Your task to perform on an android device: turn off wifi Image 0: 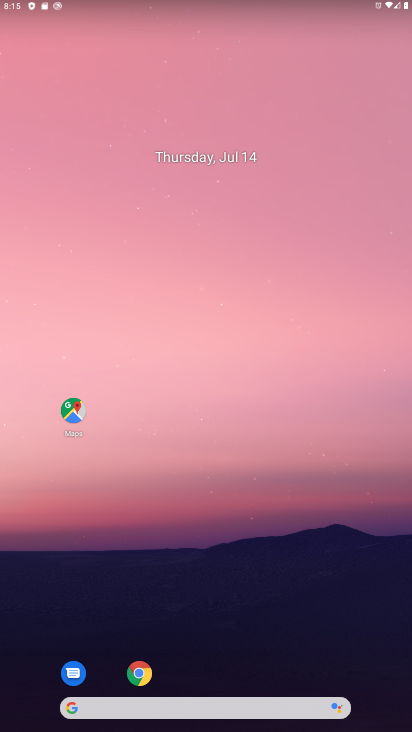
Step 0: drag from (199, 714) to (291, 162)
Your task to perform on an android device: turn off wifi Image 1: 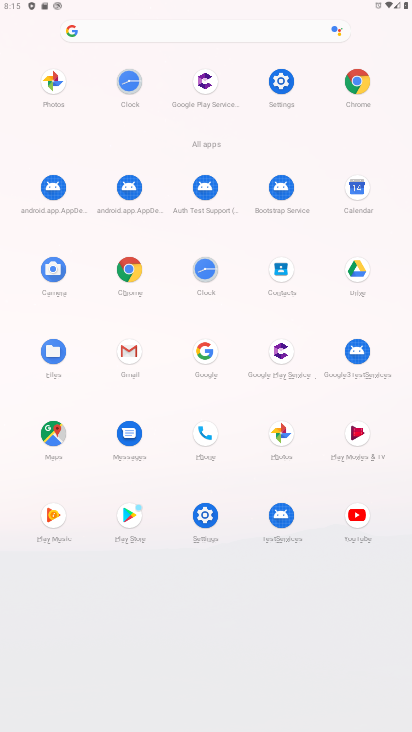
Step 1: click (282, 83)
Your task to perform on an android device: turn off wifi Image 2: 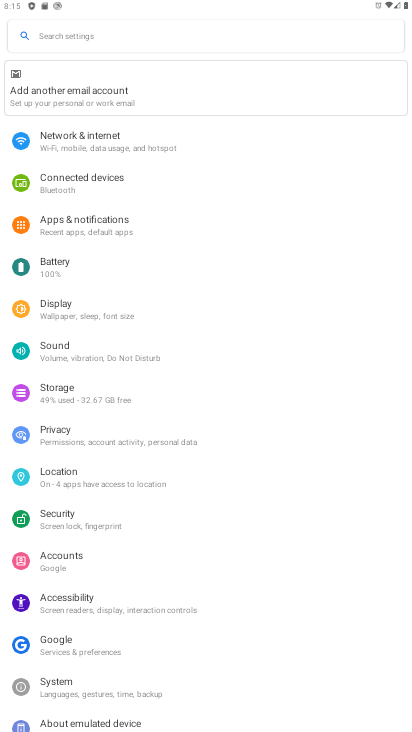
Step 2: click (112, 145)
Your task to perform on an android device: turn off wifi Image 3: 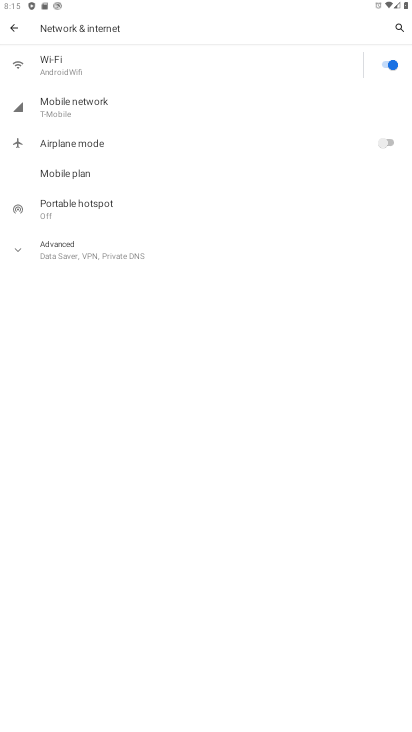
Step 3: click (392, 63)
Your task to perform on an android device: turn off wifi Image 4: 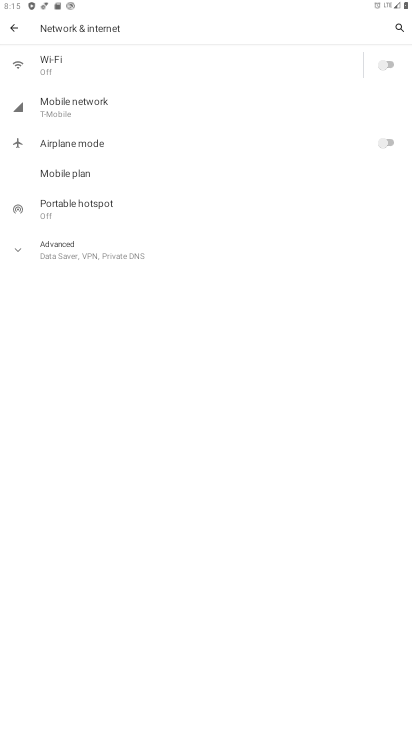
Step 4: task complete